Your task to perform on an android device: change the clock style Image 0: 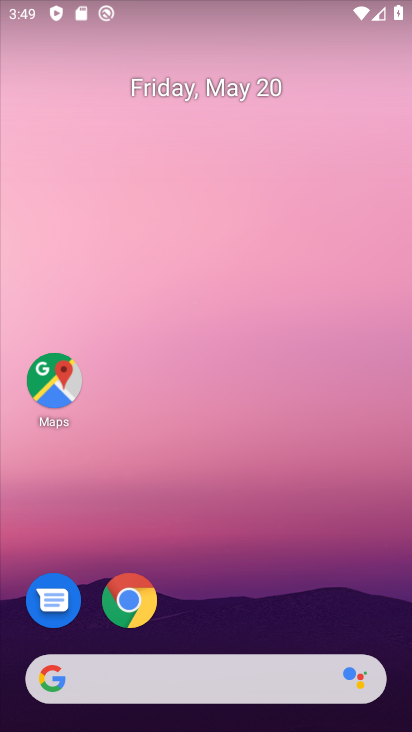
Step 0: drag from (250, 588) to (337, 31)
Your task to perform on an android device: change the clock style Image 1: 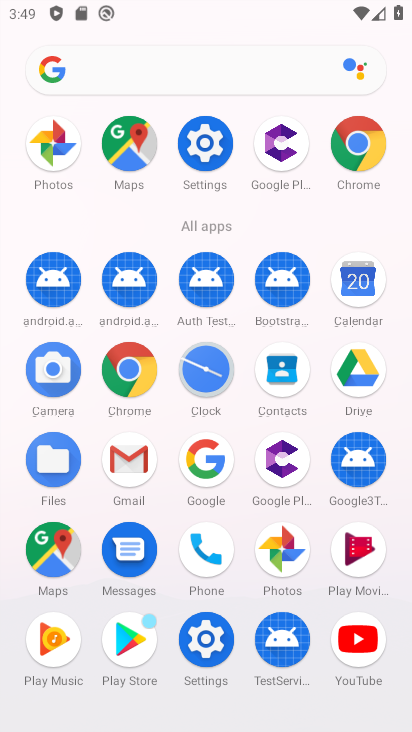
Step 1: click (216, 374)
Your task to perform on an android device: change the clock style Image 2: 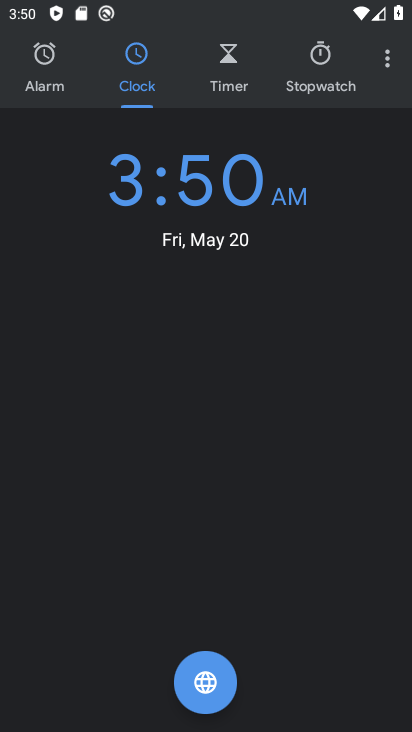
Step 2: click (389, 47)
Your task to perform on an android device: change the clock style Image 3: 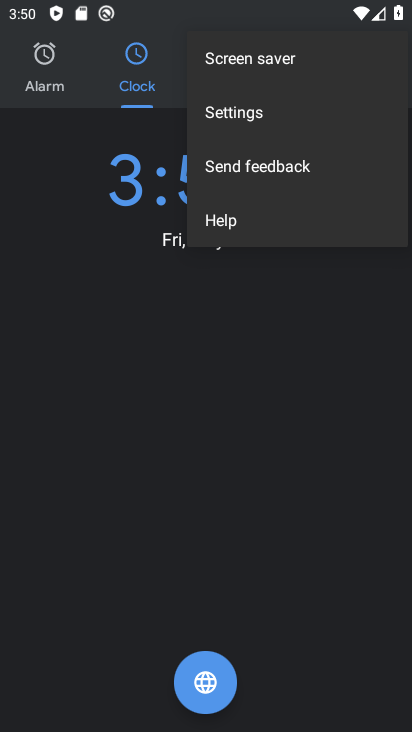
Step 3: click (236, 131)
Your task to perform on an android device: change the clock style Image 4: 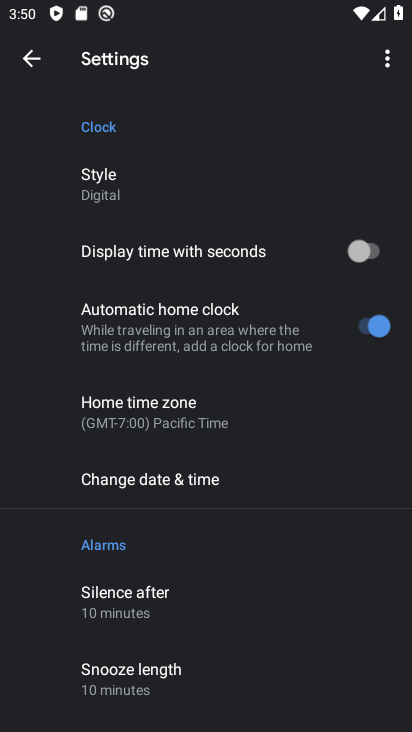
Step 4: click (125, 180)
Your task to perform on an android device: change the clock style Image 5: 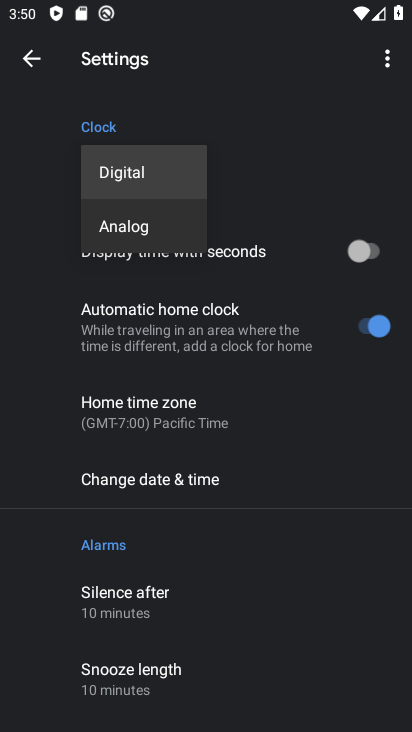
Step 5: click (123, 233)
Your task to perform on an android device: change the clock style Image 6: 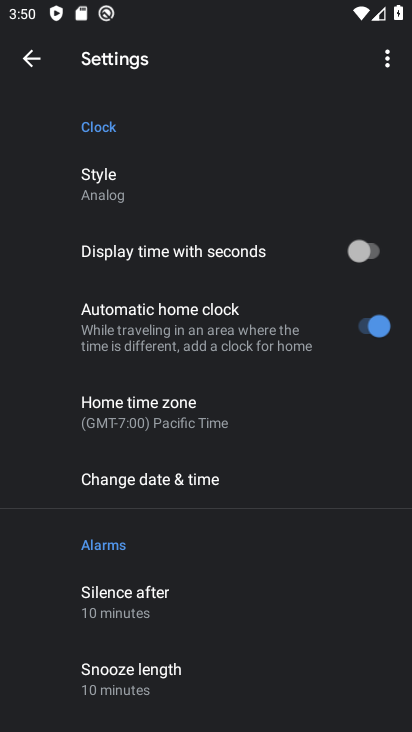
Step 6: task complete